Your task to perform on an android device: change timer sound Image 0: 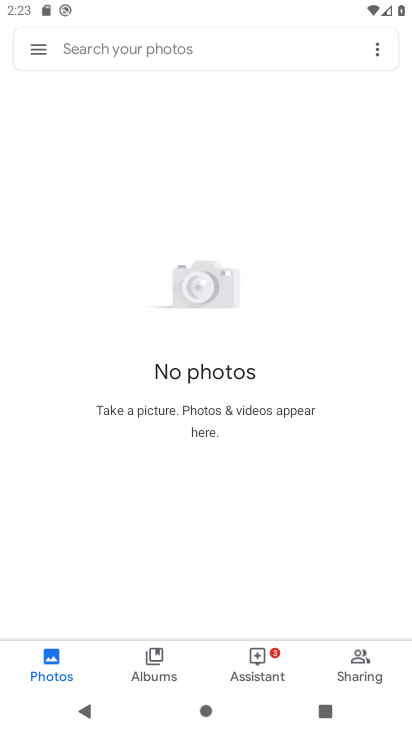
Step 0: press back button
Your task to perform on an android device: change timer sound Image 1: 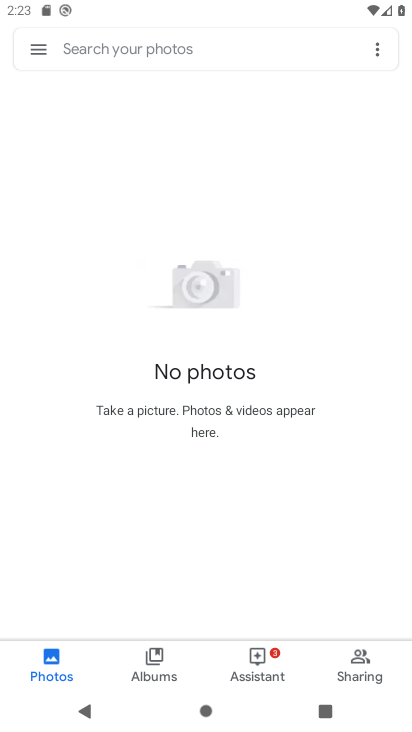
Step 1: press back button
Your task to perform on an android device: change timer sound Image 2: 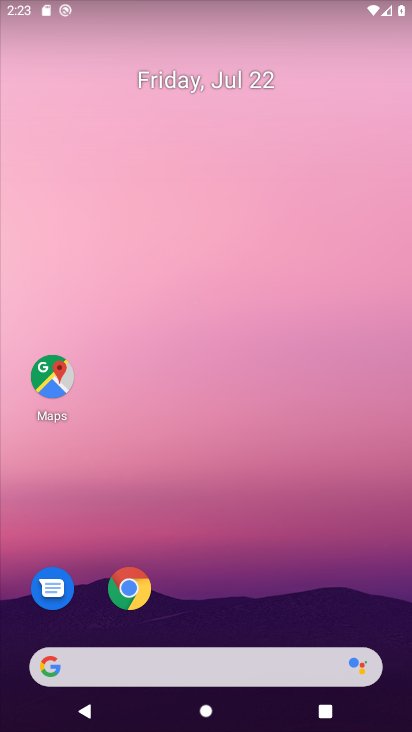
Step 2: drag from (326, 550) to (207, 133)
Your task to perform on an android device: change timer sound Image 3: 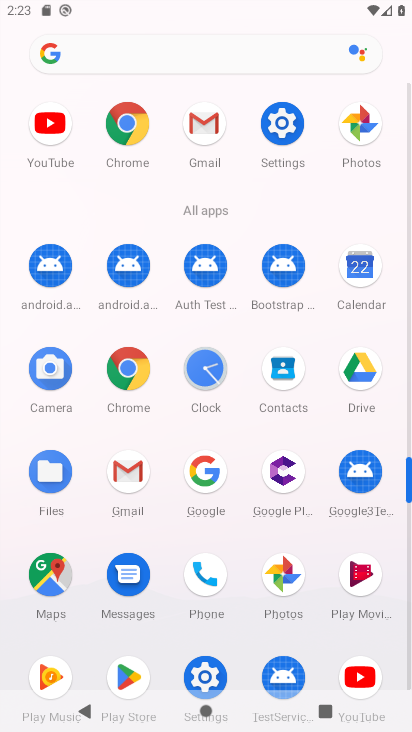
Step 3: click (278, 119)
Your task to perform on an android device: change timer sound Image 4: 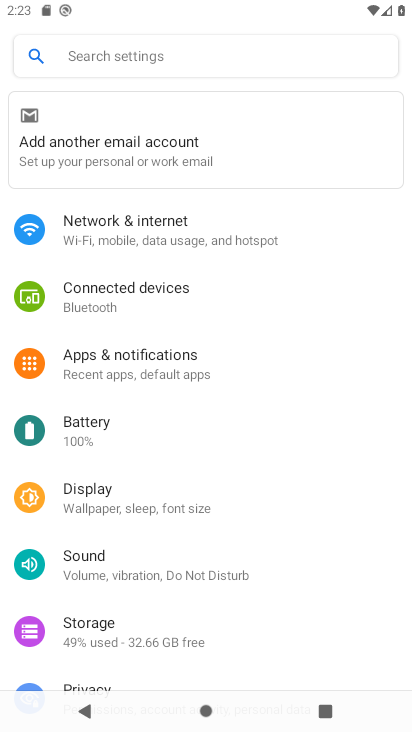
Step 4: drag from (204, 611) to (161, 125)
Your task to perform on an android device: change timer sound Image 5: 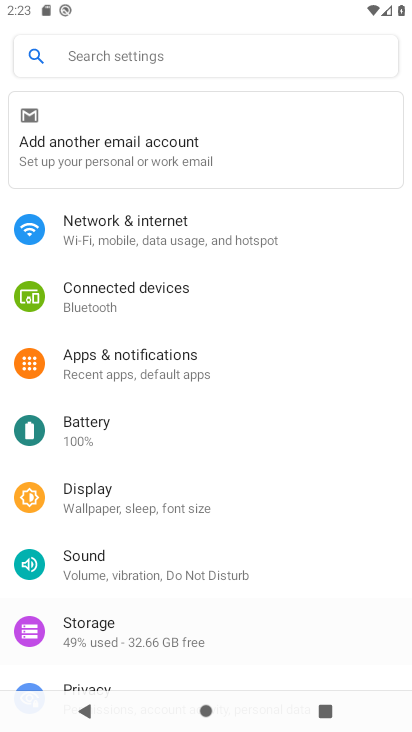
Step 5: drag from (59, 164) to (109, 119)
Your task to perform on an android device: change timer sound Image 6: 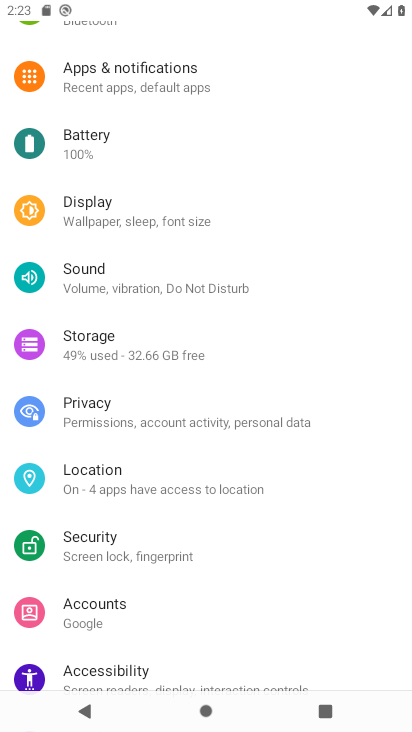
Step 6: drag from (121, 456) to (114, 187)
Your task to perform on an android device: change timer sound Image 7: 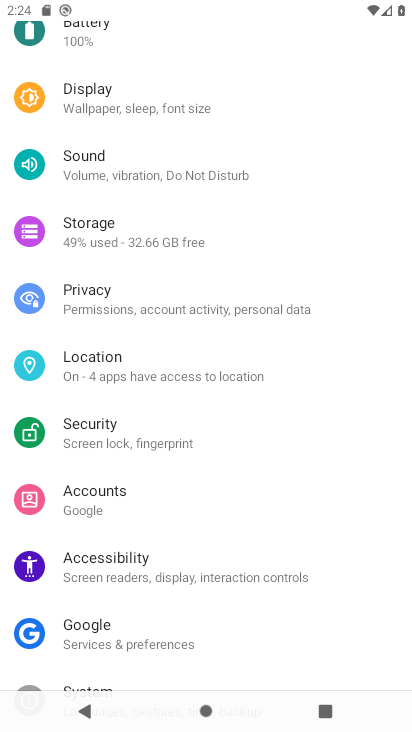
Step 7: drag from (86, 359) to (81, 184)
Your task to perform on an android device: change timer sound Image 8: 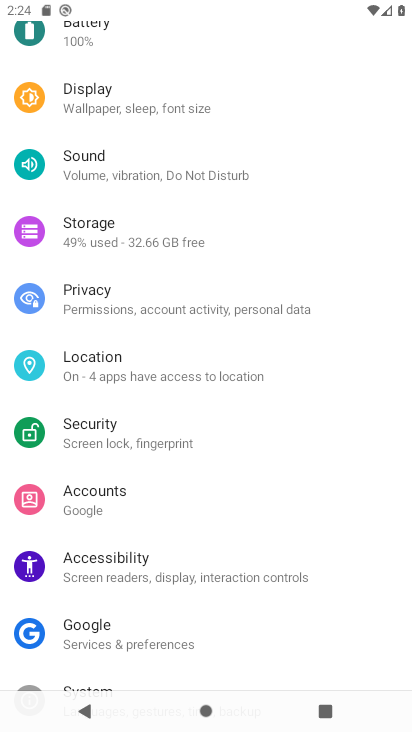
Step 8: drag from (112, 118) to (153, 58)
Your task to perform on an android device: change timer sound Image 9: 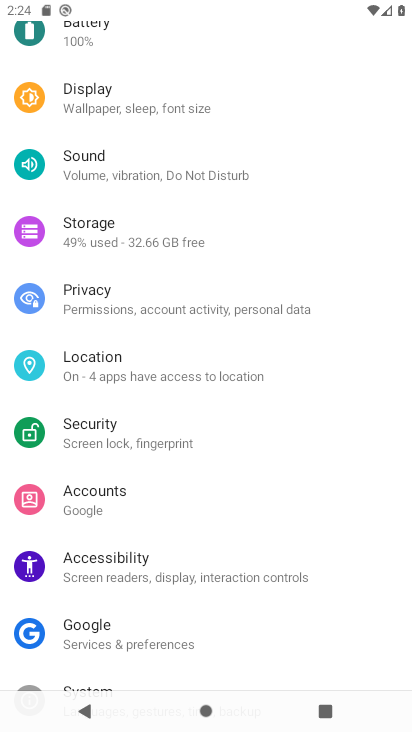
Step 9: drag from (114, 288) to (149, 6)
Your task to perform on an android device: change timer sound Image 10: 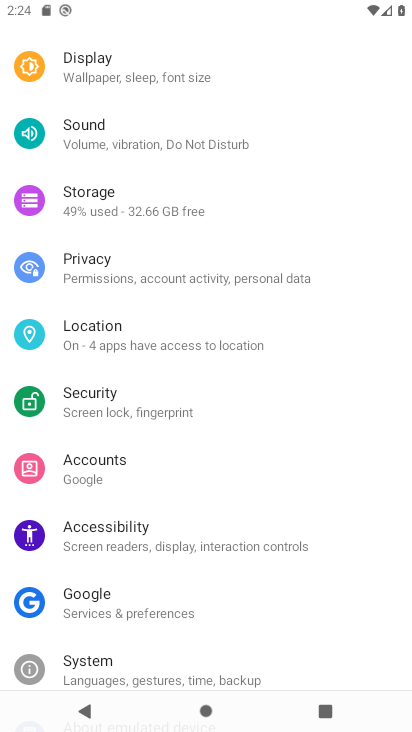
Step 10: drag from (46, 482) to (42, 169)
Your task to perform on an android device: change timer sound Image 11: 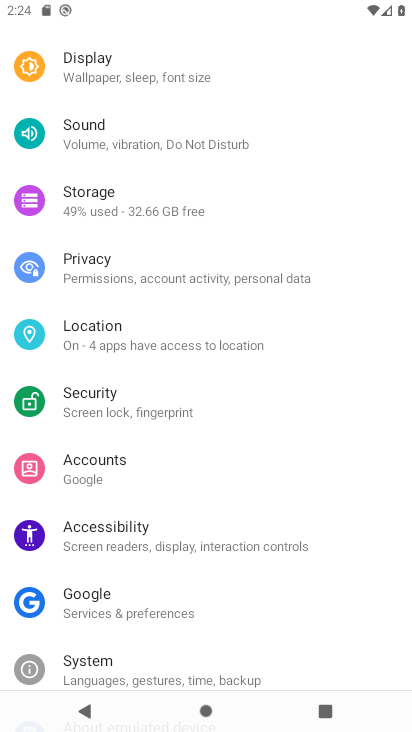
Step 11: press back button
Your task to perform on an android device: change timer sound Image 12: 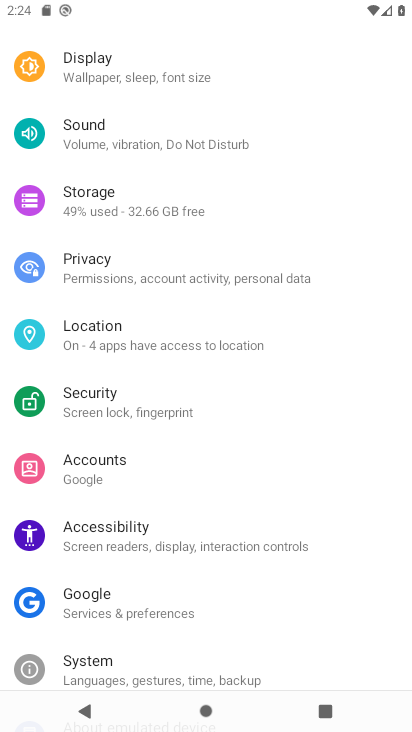
Step 12: press back button
Your task to perform on an android device: change timer sound Image 13: 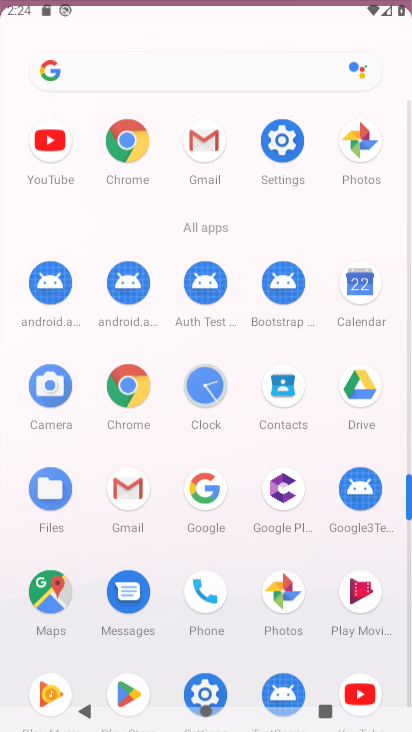
Step 13: press back button
Your task to perform on an android device: change timer sound Image 14: 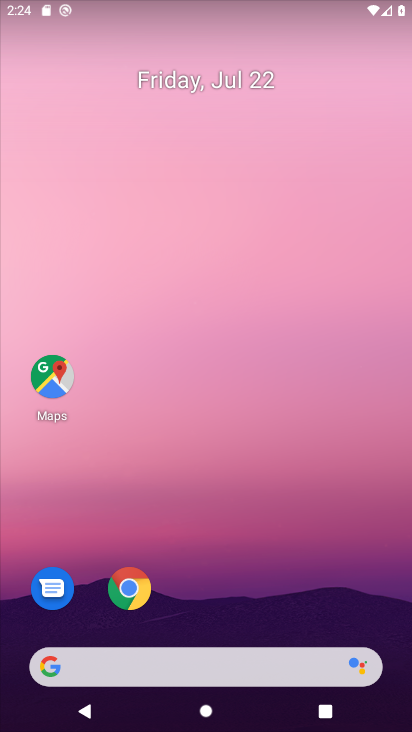
Step 14: drag from (157, 437) to (139, 328)
Your task to perform on an android device: change timer sound Image 15: 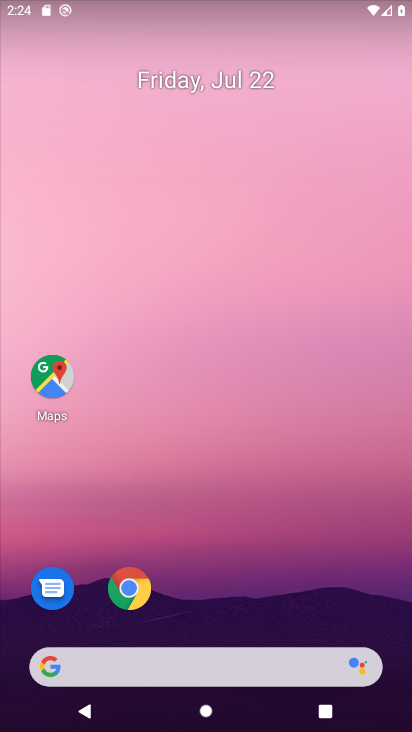
Step 15: drag from (196, 503) to (196, 114)
Your task to perform on an android device: change timer sound Image 16: 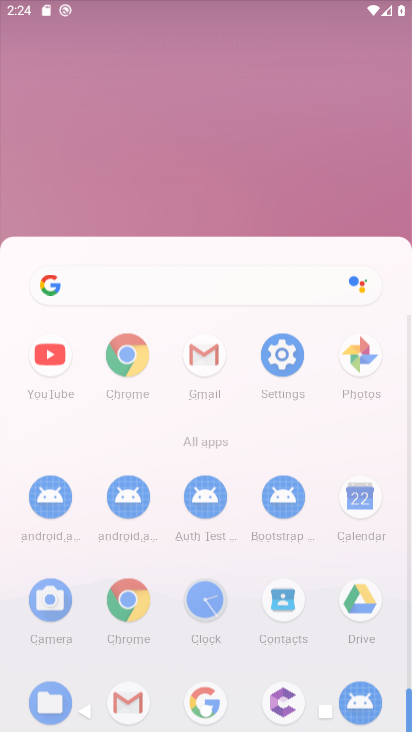
Step 16: drag from (221, 485) to (261, 5)
Your task to perform on an android device: change timer sound Image 17: 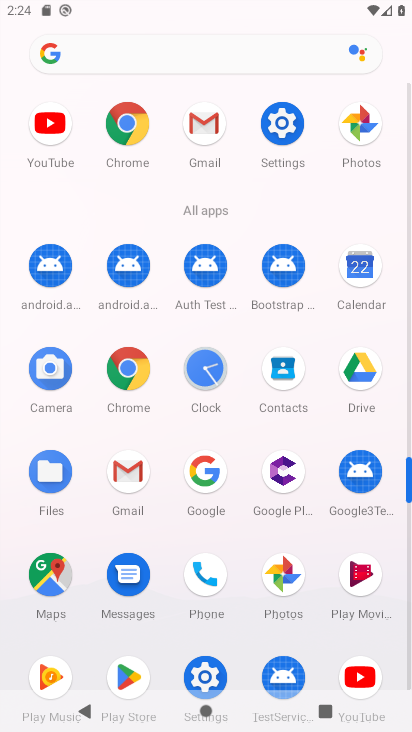
Step 17: click (276, 131)
Your task to perform on an android device: change timer sound Image 18: 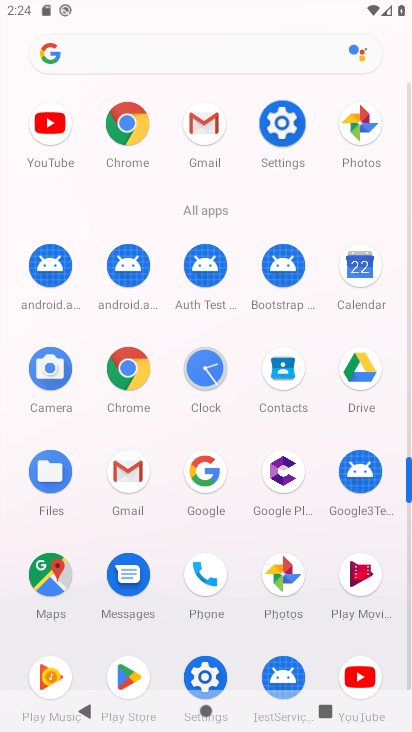
Step 18: click (275, 130)
Your task to perform on an android device: change timer sound Image 19: 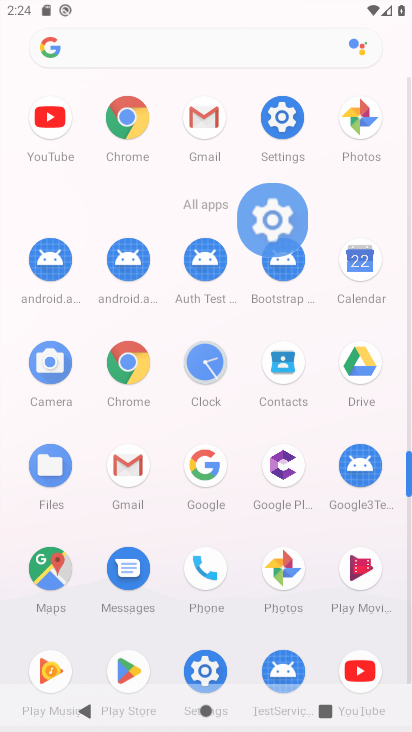
Step 19: click (275, 130)
Your task to perform on an android device: change timer sound Image 20: 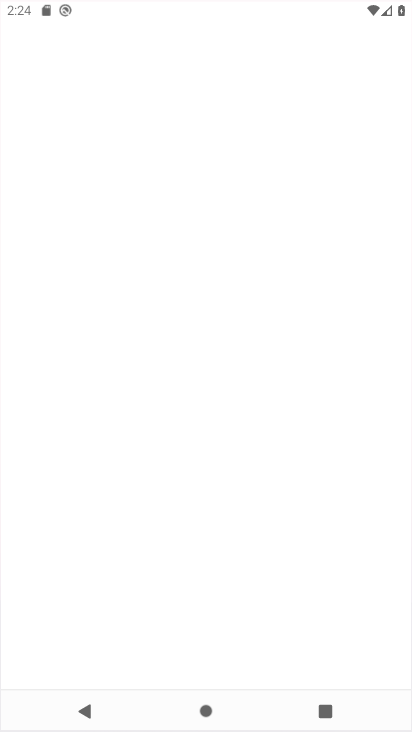
Step 20: click (275, 130)
Your task to perform on an android device: change timer sound Image 21: 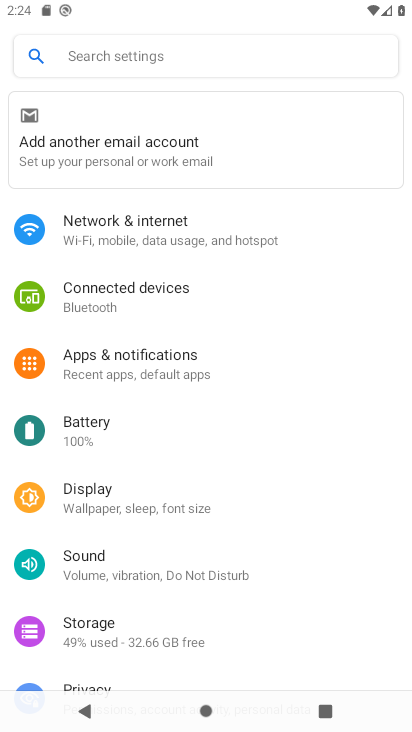
Step 21: press back button
Your task to perform on an android device: change timer sound Image 22: 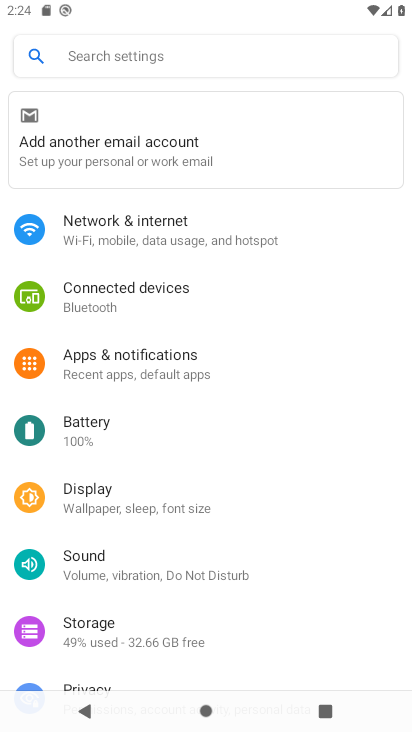
Step 22: press back button
Your task to perform on an android device: change timer sound Image 23: 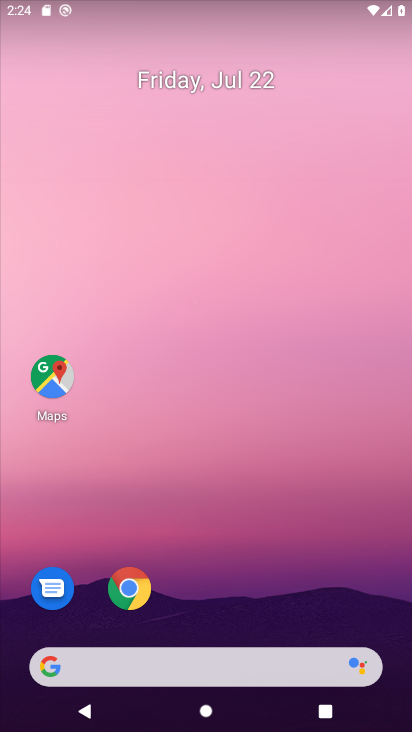
Step 23: drag from (203, 352) to (203, 52)
Your task to perform on an android device: change timer sound Image 24: 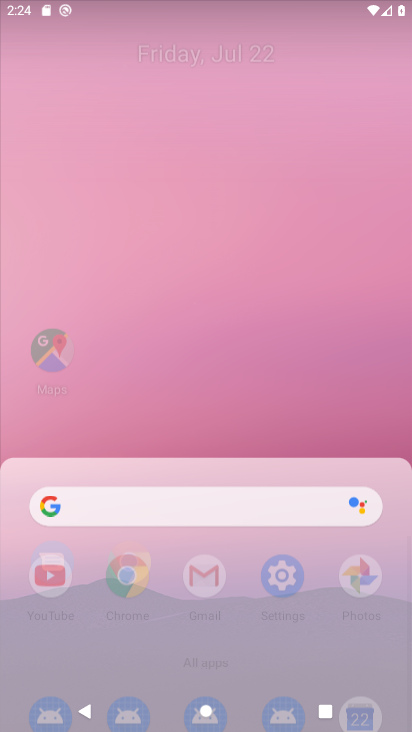
Step 24: drag from (203, 318) to (203, 67)
Your task to perform on an android device: change timer sound Image 25: 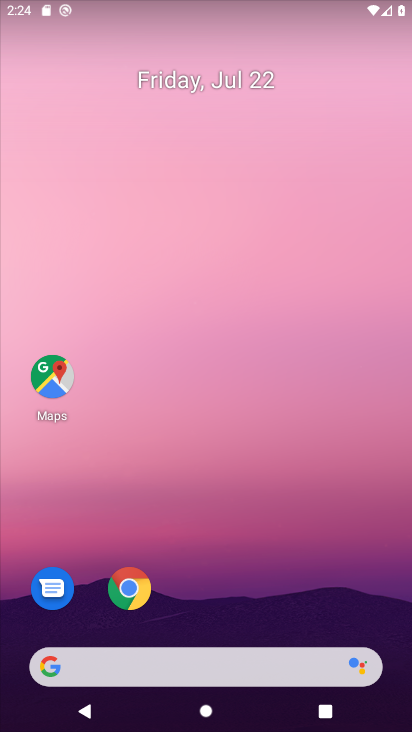
Step 25: drag from (207, 350) to (191, 248)
Your task to perform on an android device: change timer sound Image 26: 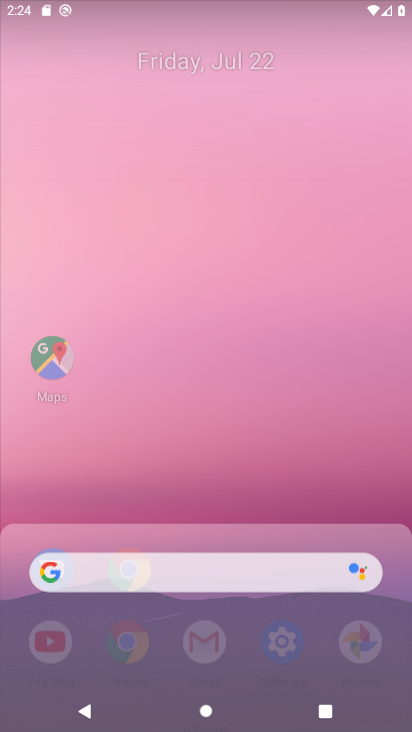
Step 26: drag from (227, 415) to (185, 286)
Your task to perform on an android device: change timer sound Image 27: 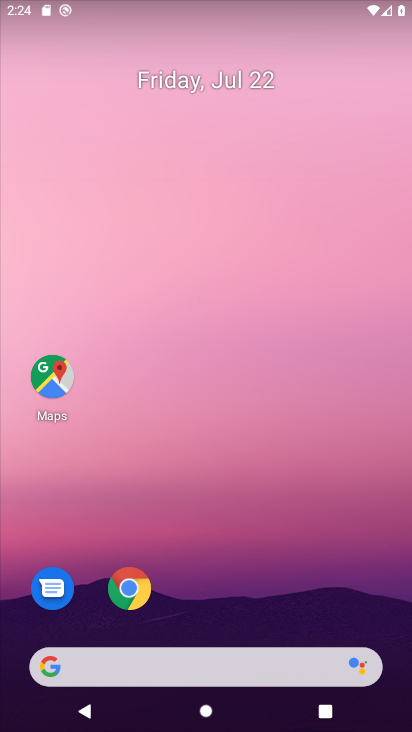
Step 27: drag from (238, 455) to (196, 52)
Your task to perform on an android device: change timer sound Image 28: 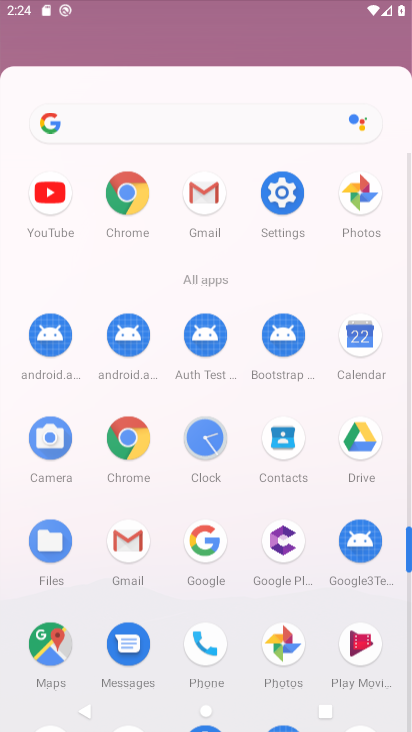
Step 28: drag from (156, 109) to (156, 60)
Your task to perform on an android device: change timer sound Image 29: 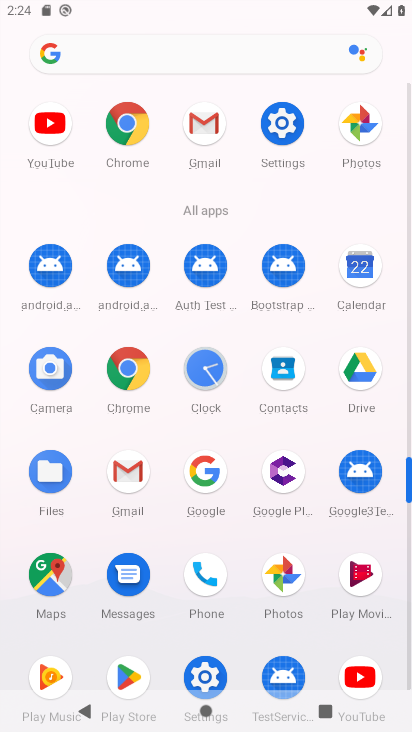
Step 29: click (261, 14)
Your task to perform on an android device: change timer sound Image 30: 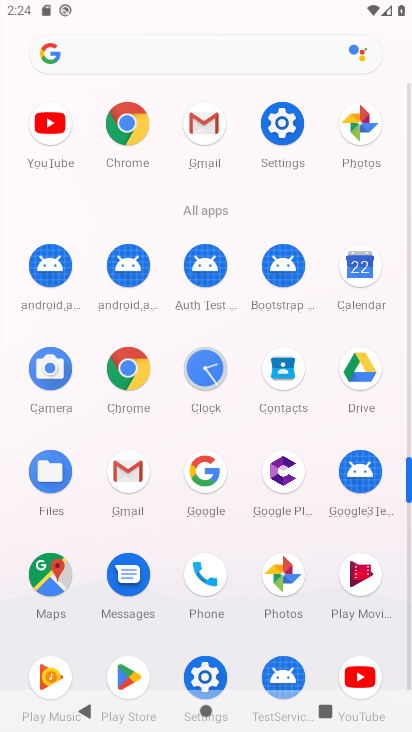
Step 30: drag from (165, 59) to (195, 90)
Your task to perform on an android device: change timer sound Image 31: 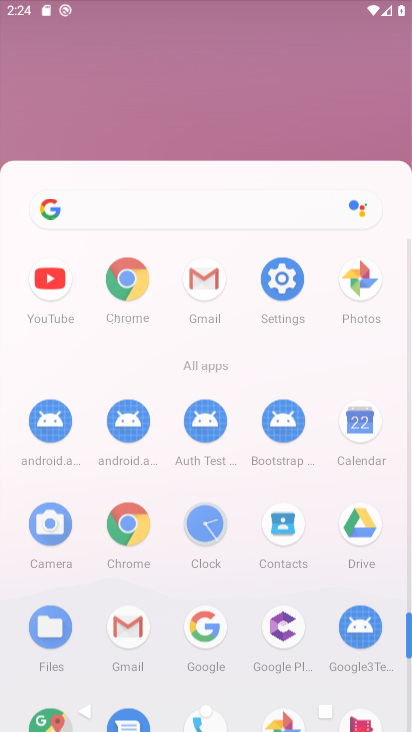
Step 31: drag from (225, 380) to (214, 0)
Your task to perform on an android device: change timer sound Image 32: 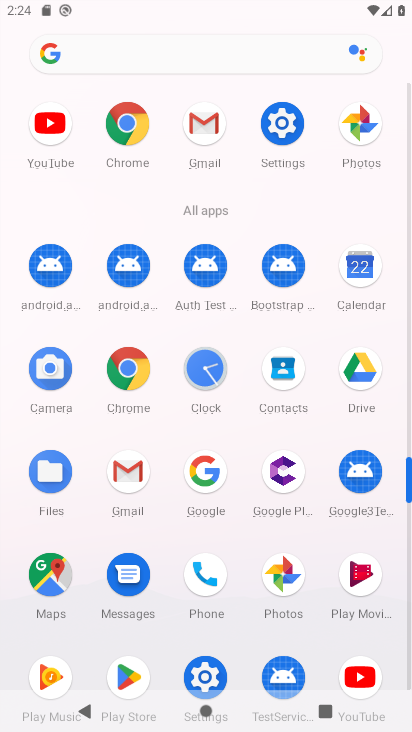
Step 32: drag from (227, 290) to (197, 71)
Your task to perform on an android device: change timer sound Image 33: 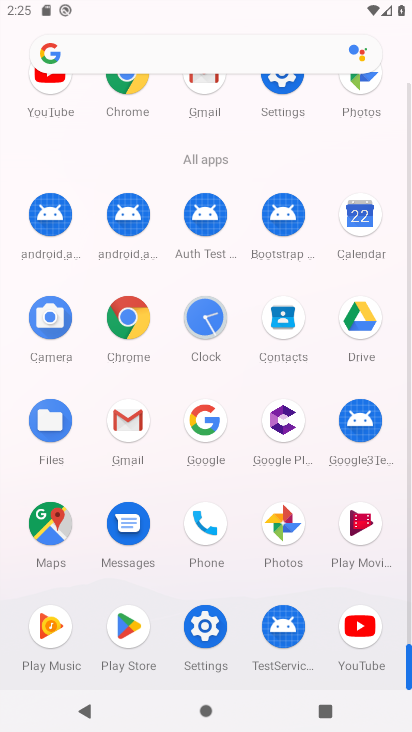
Step 33: click (208, 314)
Your task to perform on an android device: change timer sound Image 34: 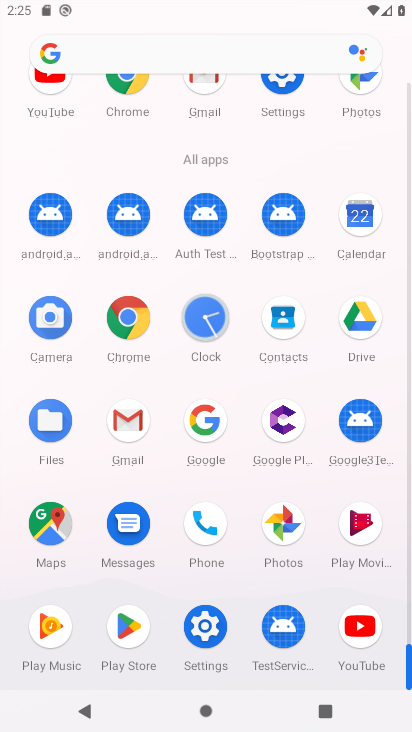
Step 34: click (204, 310)
Your task to perform on an android device: change timer sound Image 35: 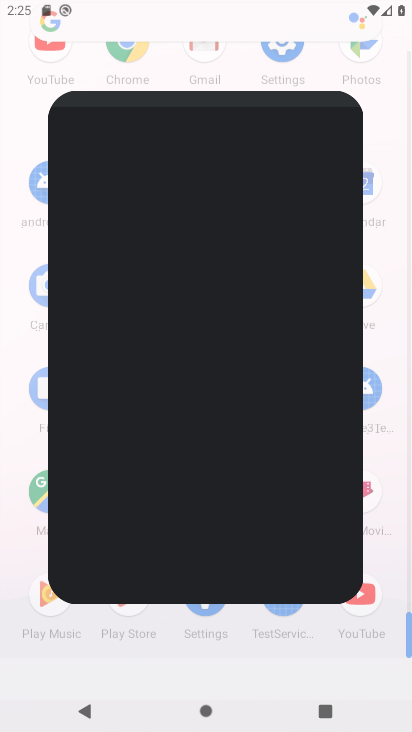
Step 35: click (204, 310)
Your task to perform on an android device: change timer sound Image 36: 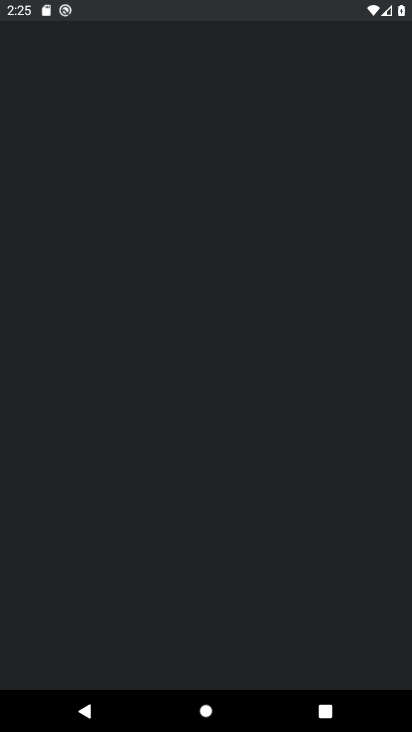
Step 36: click (204, 304)
Your task to perform on an android device: change timer sound Image 37: 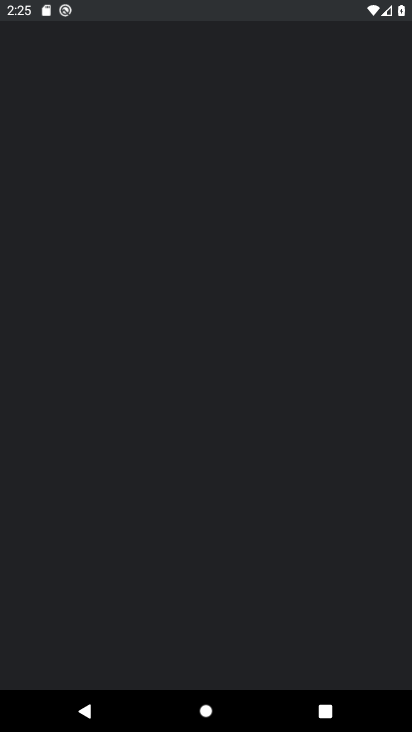
Step 37: click (204, 304)
Your task to perform on an android device: change timer sound Image 38: 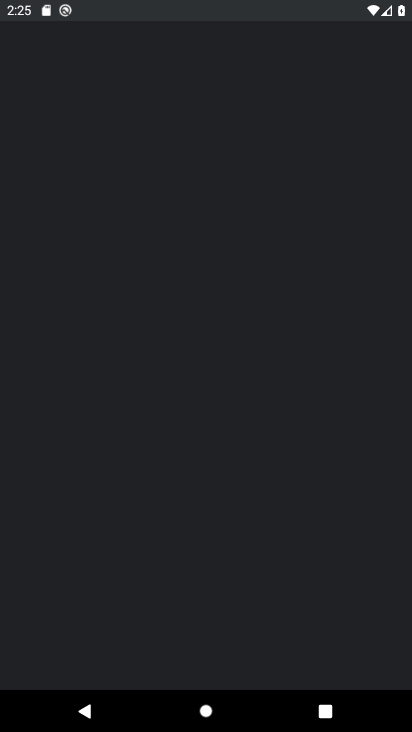
Step 38: click (204, 304)
Your task to perform on an android device: change timer sound Image 39: 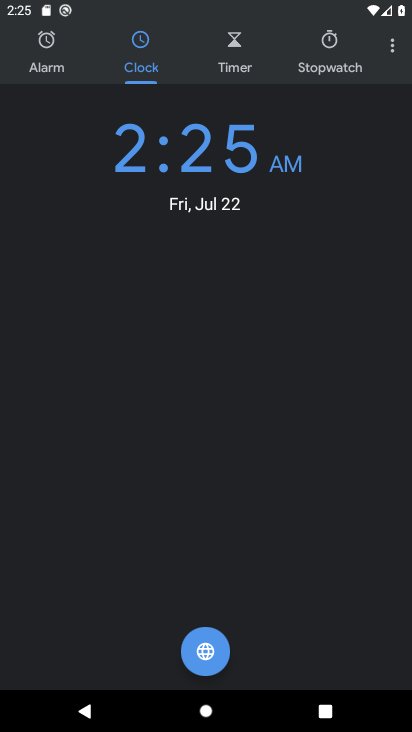
Step 39: click (232, 54)
Your task to perform on an android device: change timer sound Image 40: 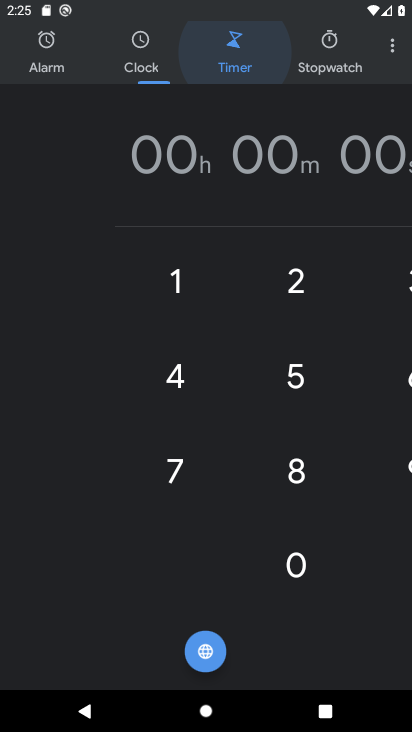
Step 40: click (232, 54)
Your task to perform on an android device: change timer sound Image 41: 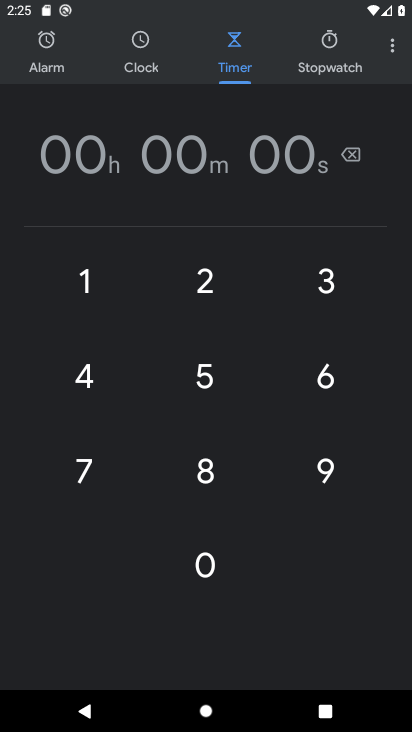
Step 41: click (232, 54)
Your task to perform on an android device: change timer sound Image 42: 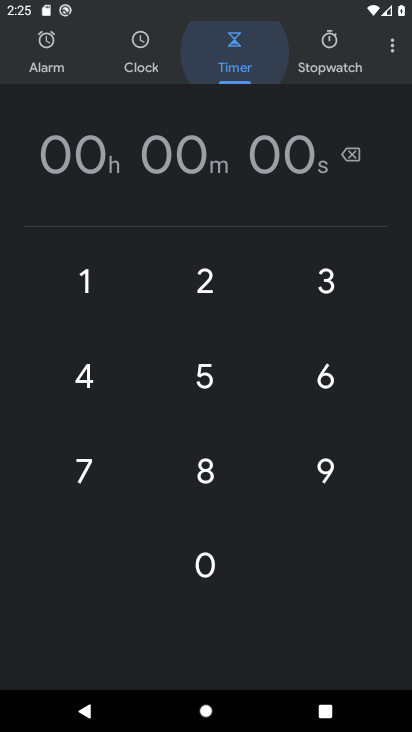
Step 42: click (232, 54)
Your task to perform on an android device: change timer sound Image 43: 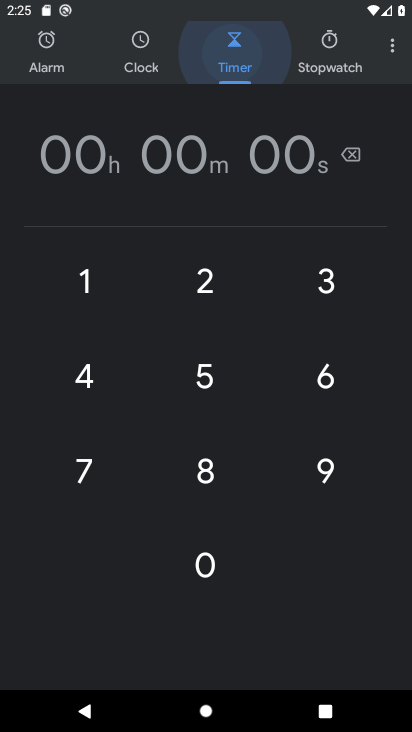
Step 43: click (232, 54)
Your task to perform on an android device: change timer sound Image 44: 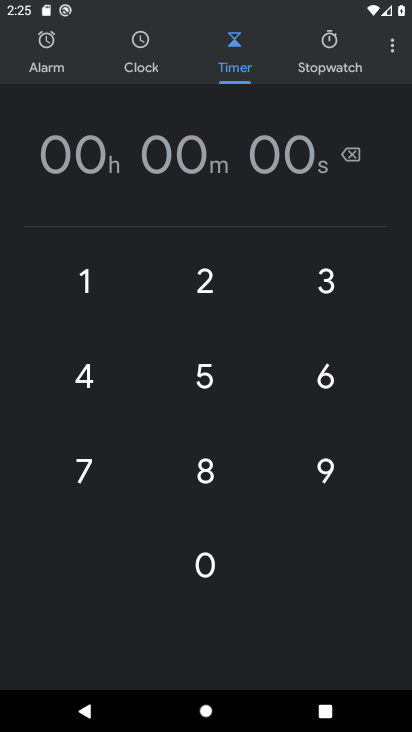
Step 44: click (196, 385)
Your task to perform on an android device: change timer sound Image 45: 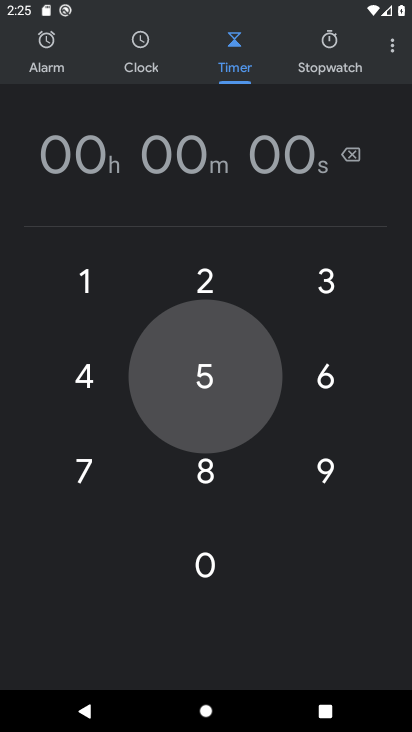
Step 45: click (201, 381)
Your task to perform on an android device: change timer sound Image 46: 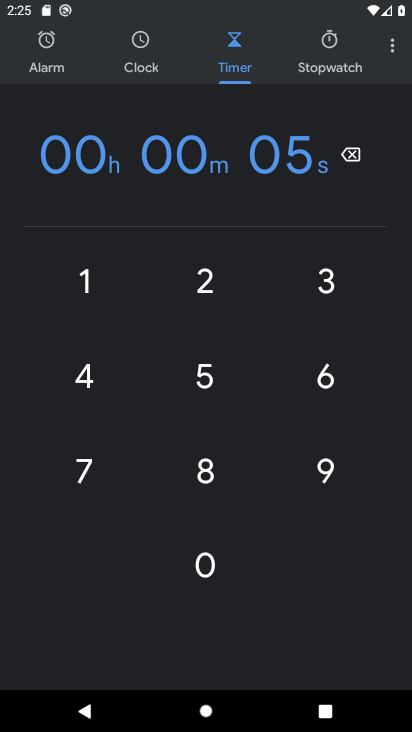
Step 46: click (206, 380)
Your task to perform on an android device: change timer sound Image 47: 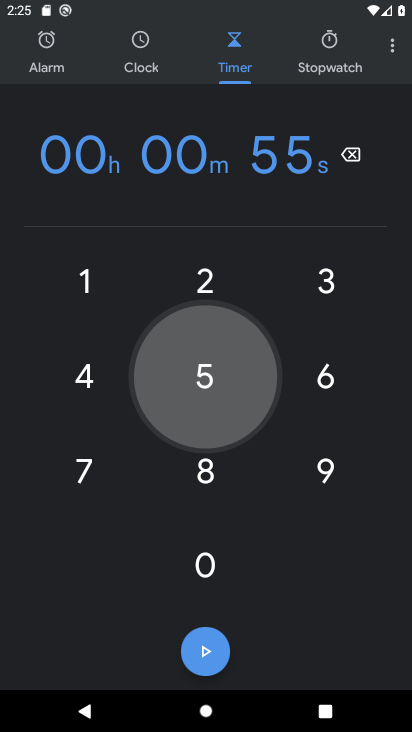
Step 47: click (207, 380)
Your task to perform on an android device: change timer sound Image 48: 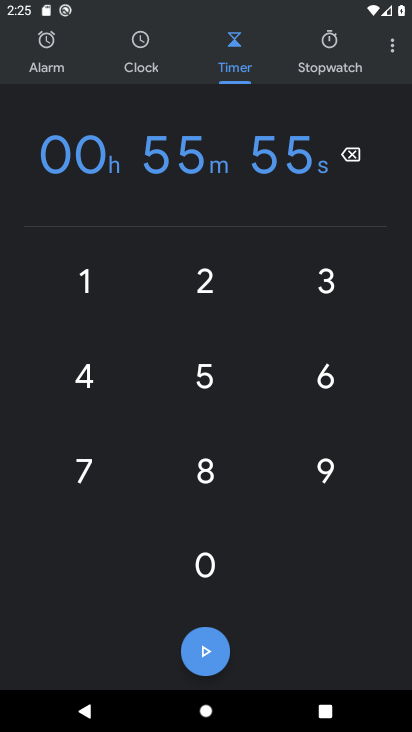
Step 48: click (207, 372)
Your task to perform on an android device: change timer sound Image 49: 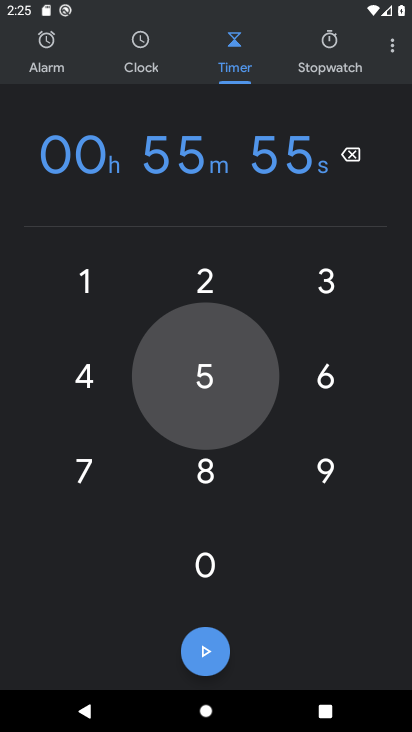
Step 49: click (207, 372)
Your task to perform on an android device: change timer sound Image 50: 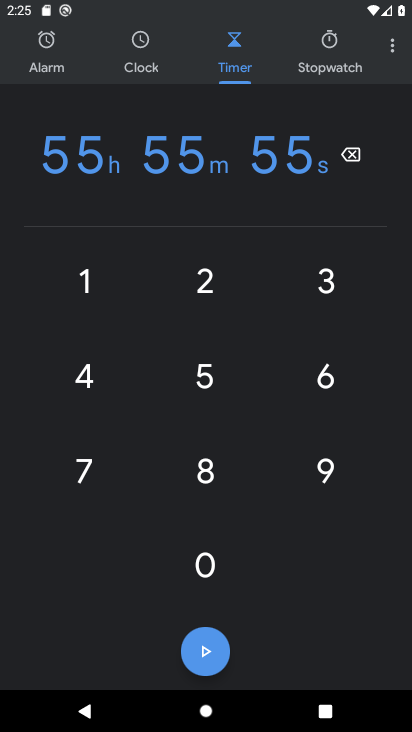
Step 50: click (195, 649)
Your task to perform on an android device: change timer sound Image 51: 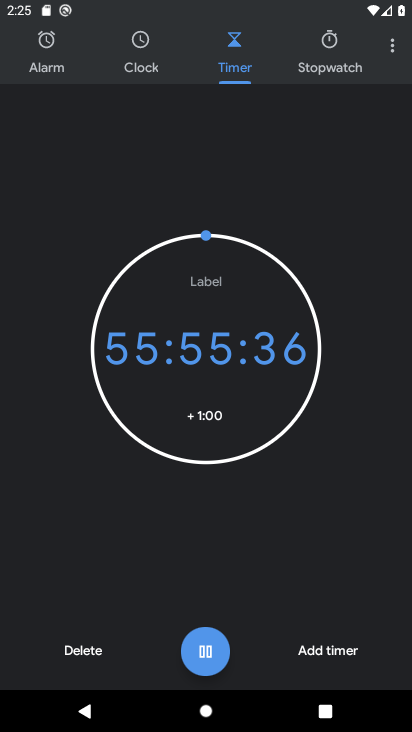
Step 51: press back button
Your task to perform on an android device: change timer sound Image 52: 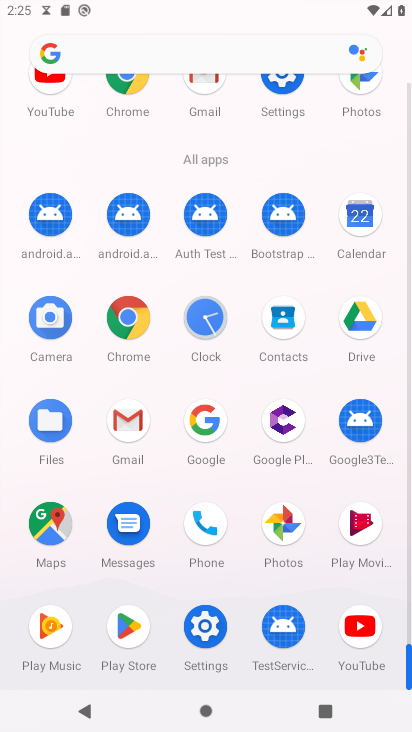
Step 52: click (198, 318)
Your task to perform on an android device: change timer sound Image 53: 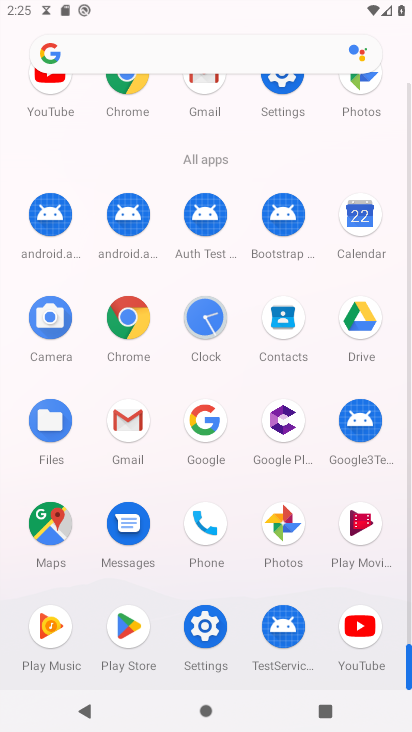
Step 53: click (203, 304)
Your task to perform on an android device: change timer sound Image 54: 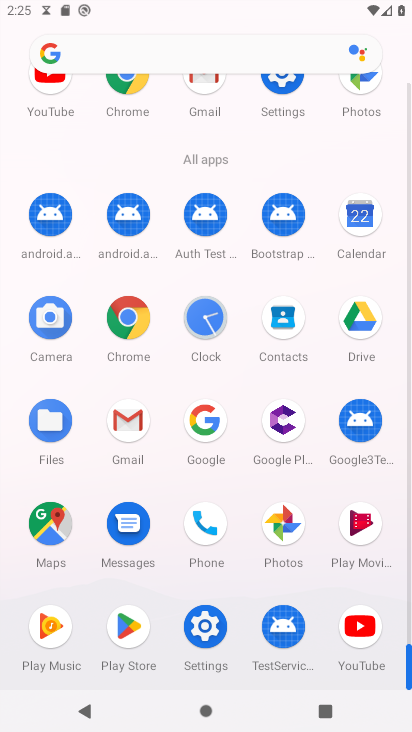
Step 54: click (204, 303)
Your task to perform on an android device: change timer sound Image 55: 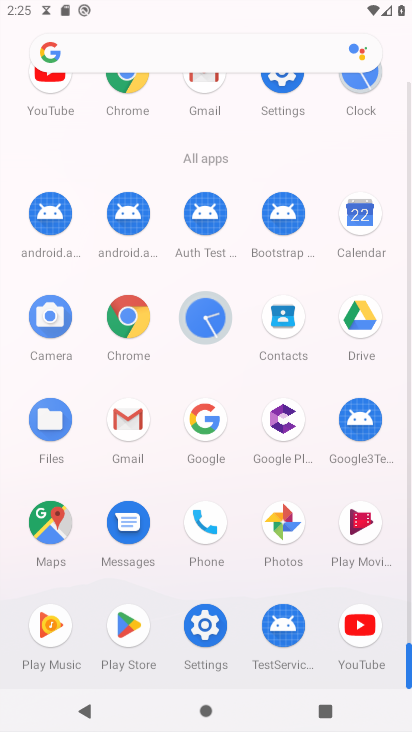
Step 55: click (219, 319)
Your task to perform on an android device: change timer sound Image 56: 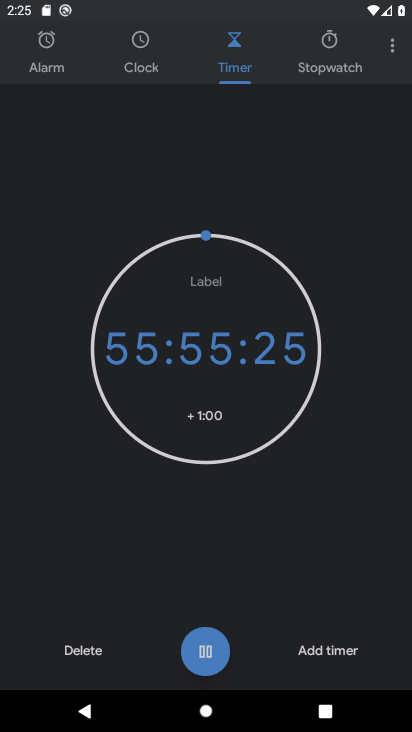
Step 56: click (204, 327)
Your task to perform on an android device: change timer sound Image 57: 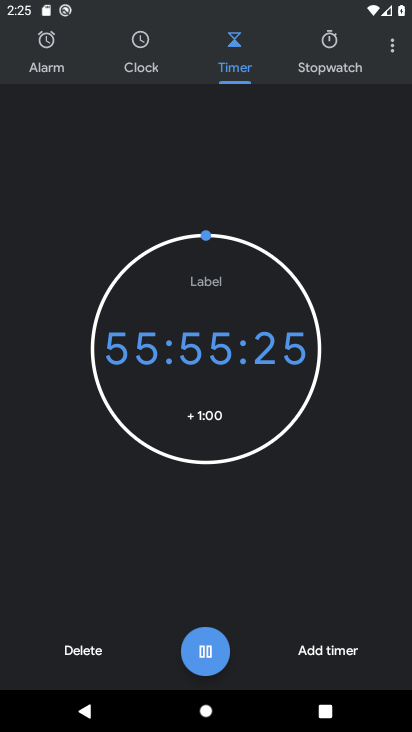
Step 57: click (214, 327)
Your task to perform on an android device: change timer sound Image 58: 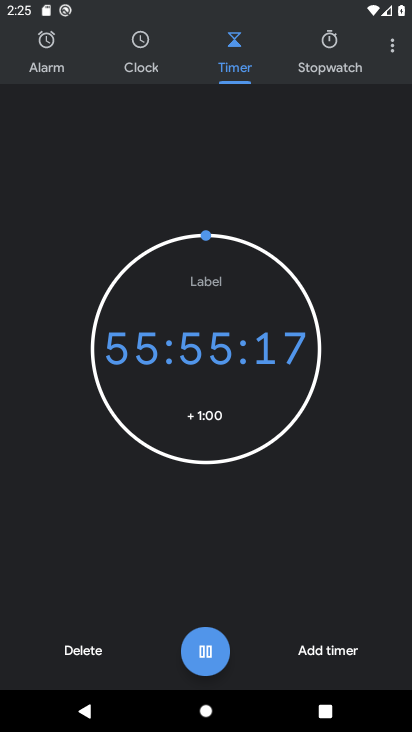
Step 58: click (204, 649)
Your task to perform on an android device: change timer sound Image 59: 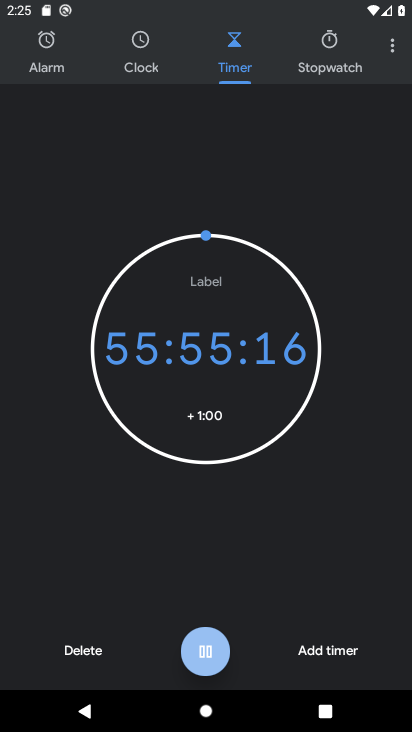
Step 59: click (205, 651)
Your task to perform on an android device: change timer sound Image 60: 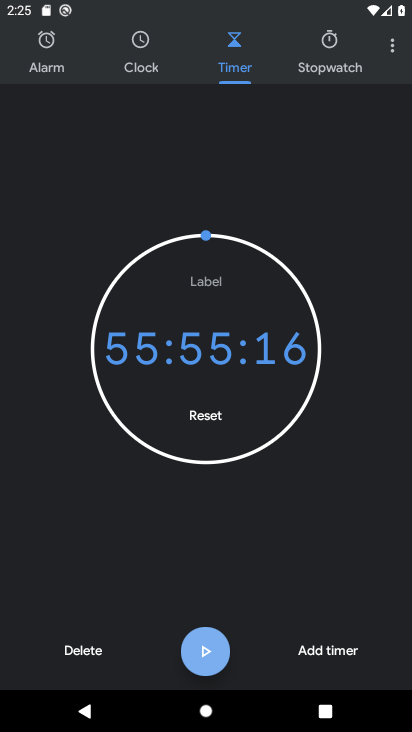
Step 60: click (205, 651)
Your task to perform on an android device: change timer sound Image 61: 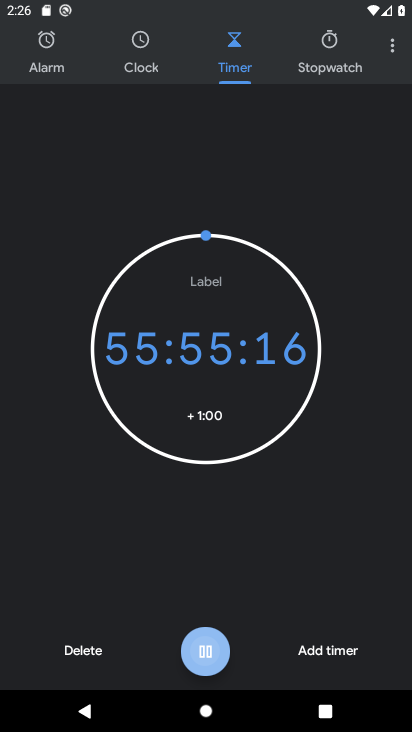
Step 61: click (206, 651)
Your task to perform on an android device: change timer sound Image 62: 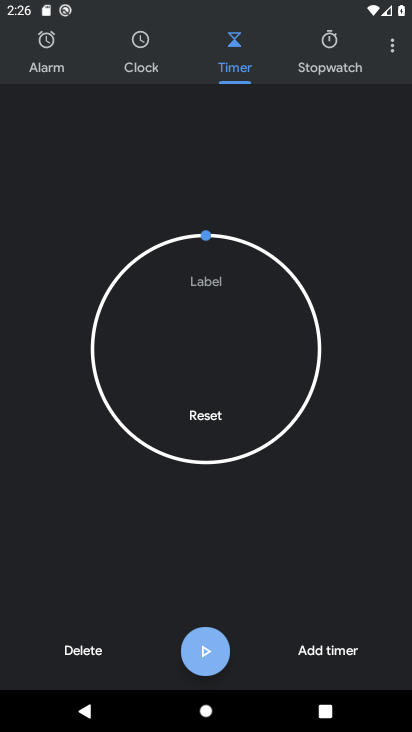
Step 62: click (208, 651)
Your task to perform on an android device: change timer sound Image 63: 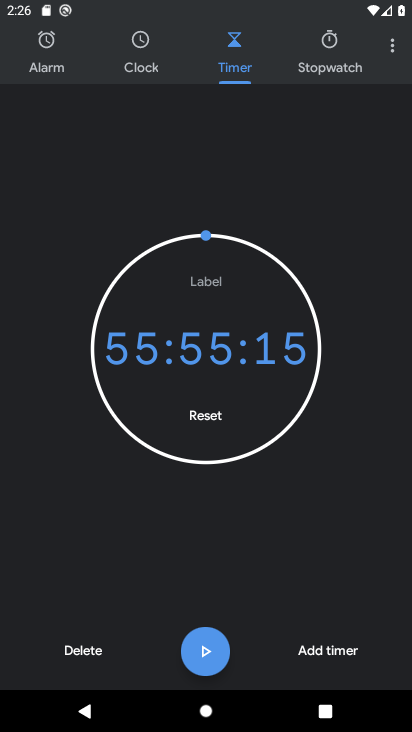
Step 63: click (210, 650)
Your task to perform on an android device: change timer sound Image 64: 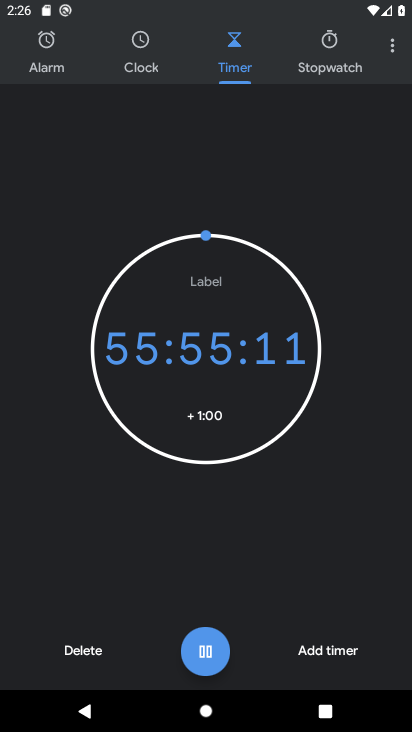
Step 64: click (199, 645)
Your task to perform on an android device: change timer sound Image 65: 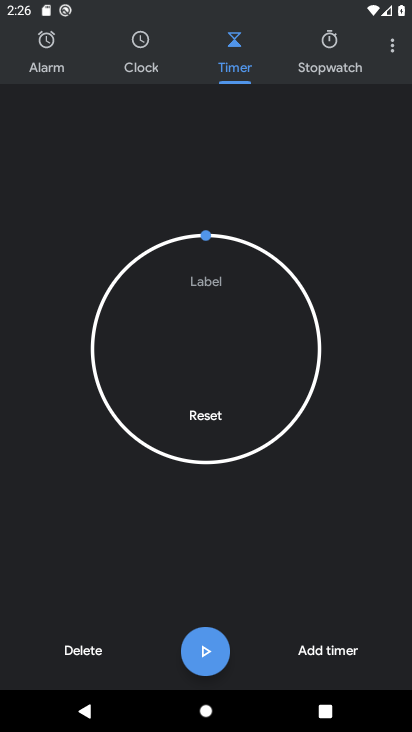
Step 65: click (208, 654)
Your task to perform on an android device: change timer sound Image 66: 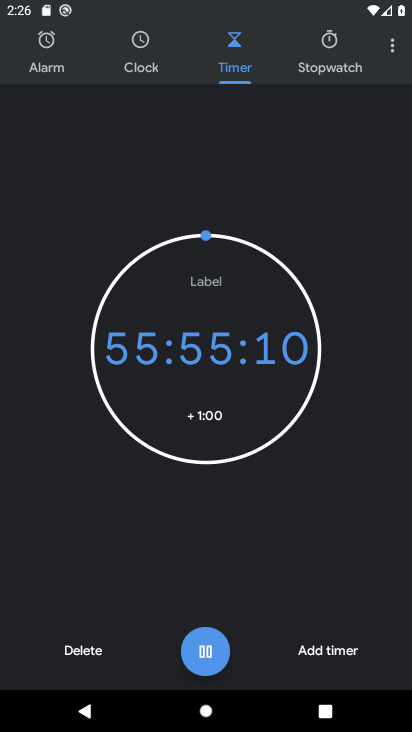
Step 66: click (208, 655)
Your task to perform on an android device: change timer sound Image 67: 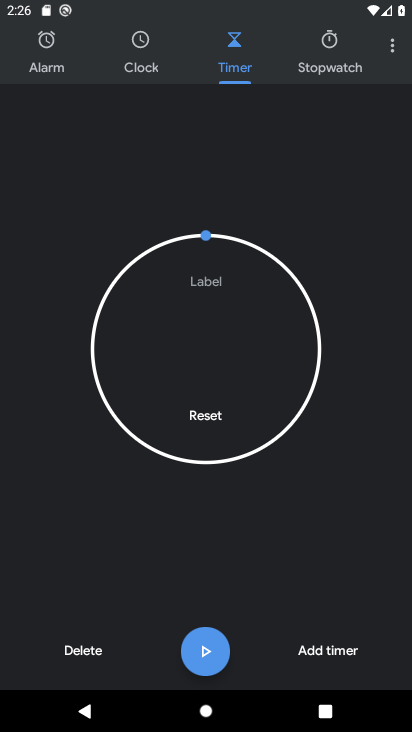
Step 67: click (201, 656)
Your task to perform on an android device: change timer sound Image 68: 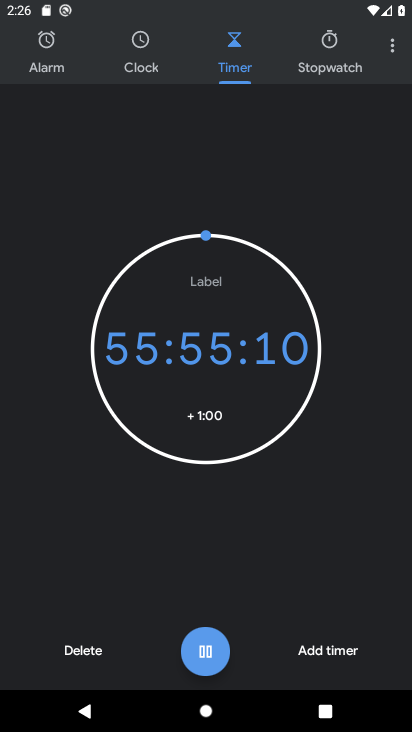
Step 68: click (200, 654)
Your task to perform on an android device: change timer sound Image 69: 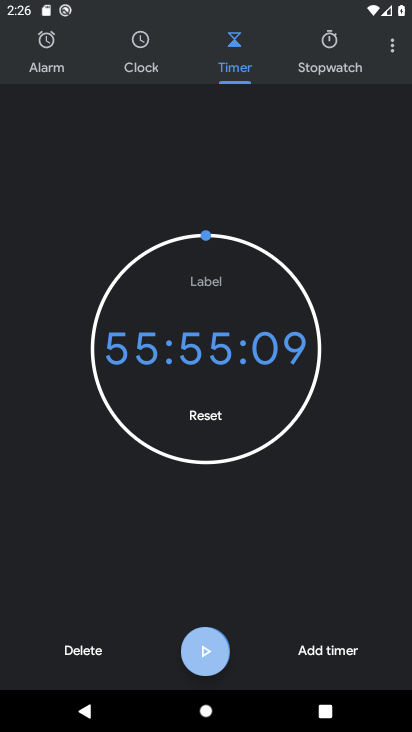
Step 69: click (201, 655)
Your task to perform on an android device: change timer sound Image 70: 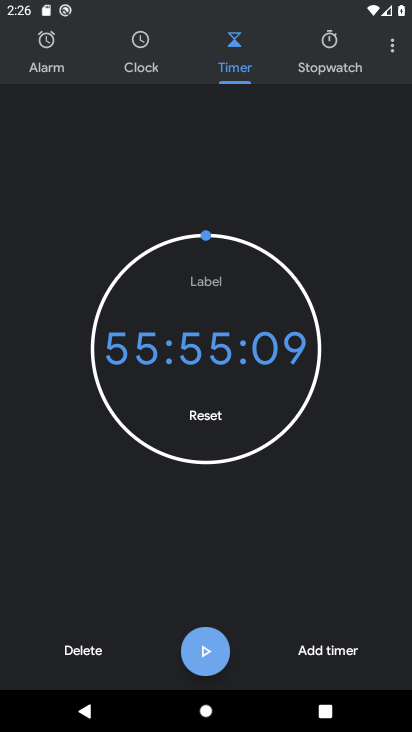
Step 70: click (201, 655)
Your task to perform on an android device: change timer sound Image 71: 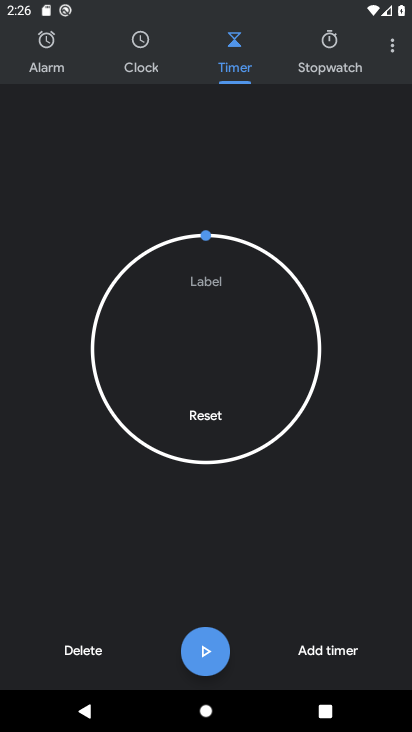
Step 71: click (203, 648)
Your task to perform on an android device: change timer sound Image 72: 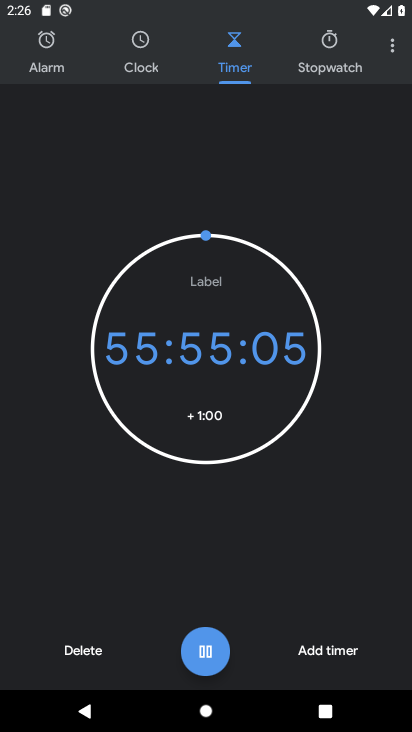
Step 72: click (202, 653)
Your task to perform on an android device: change timer sound Image 73: 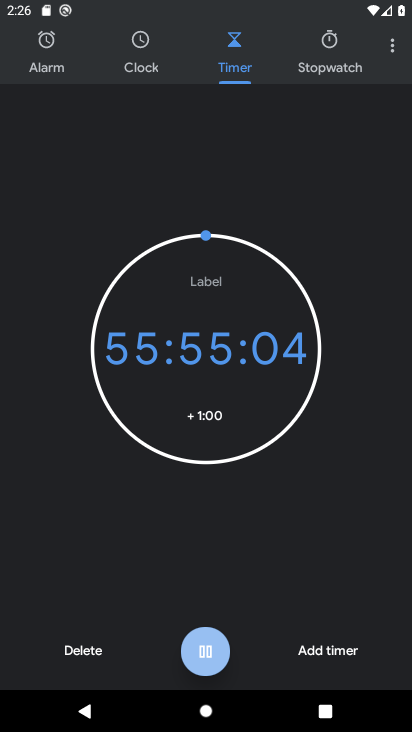
Step 73: click (203, 655)
Your task to perform on an android device: change timer sound Image 74: 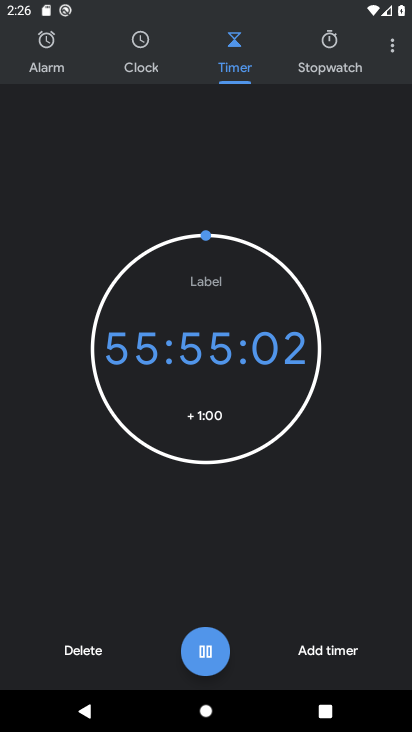
Step 74: click (207, 653)
Your task to perform on an android device: change timer sound Image 75: 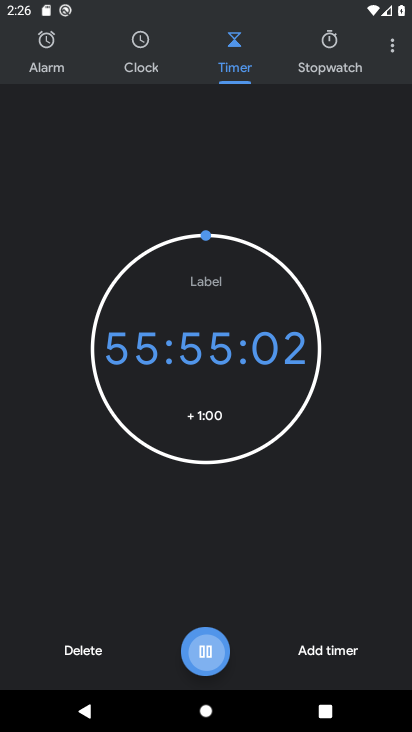
Step 75: click (207, 653)
Your task to perform on an android device: change timer sound Image 76: 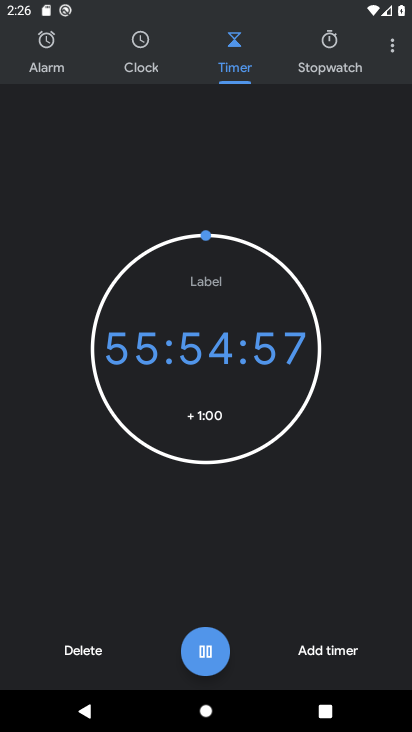
Step 76: click (210, 644)
Your task to perform on an android device: change timer sound Image 77: 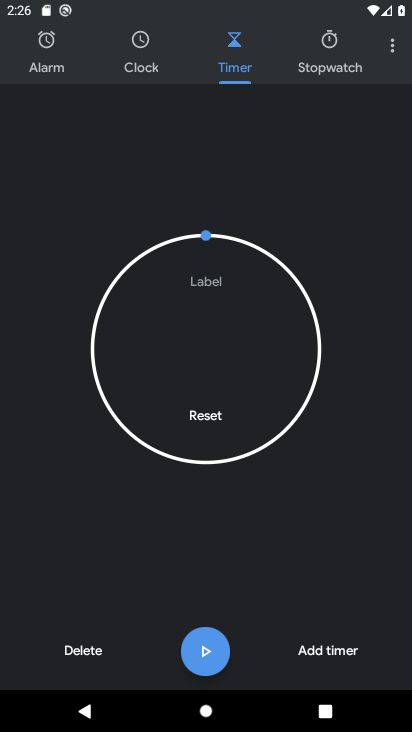
Step 77: click (210, 644)
Your task to perform on an android device: change timer sound Image 78: 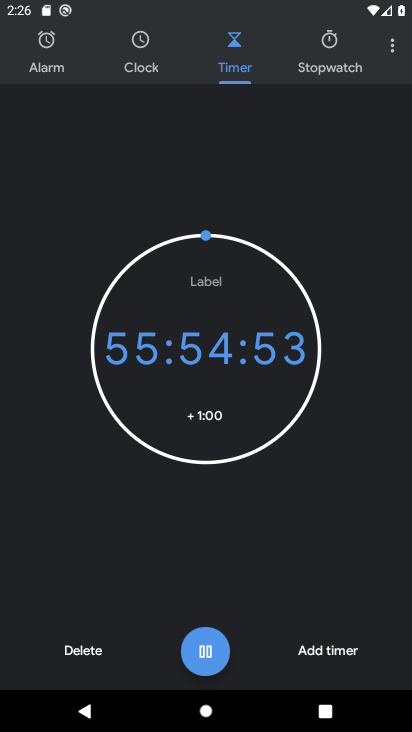
Step 78: click (206, 651)
Your task to perform on an android device: change timer sound Image 79: 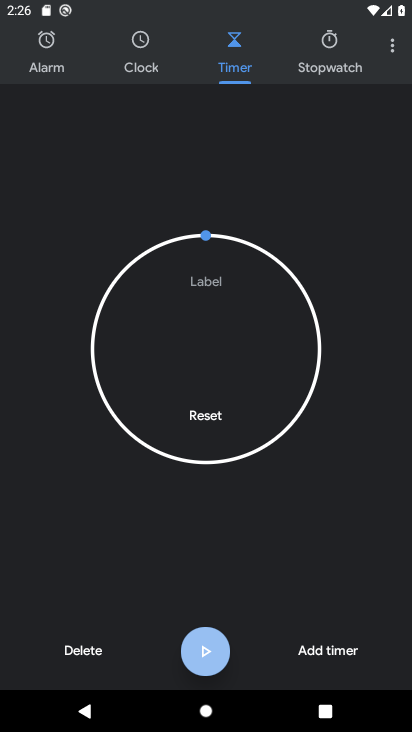
Step 79: click (210, 647)
Your task to perform on an android device: change timer sound Image 80: 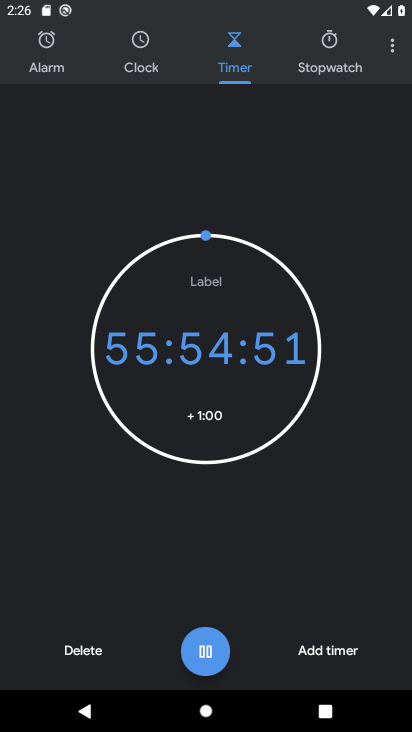
Step 80: task complete